Your task to perform on an android device: Play the last video I watched on Youtube Image 0: 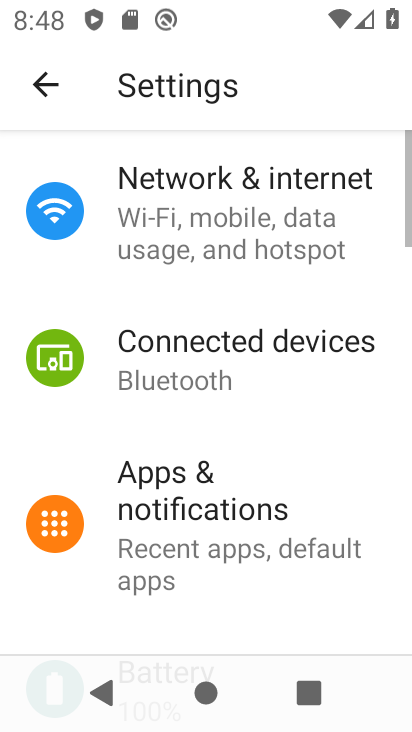
Step 0: press home button
Your task to perform on an android device: Play the last video I watched on Youtube Image 1: 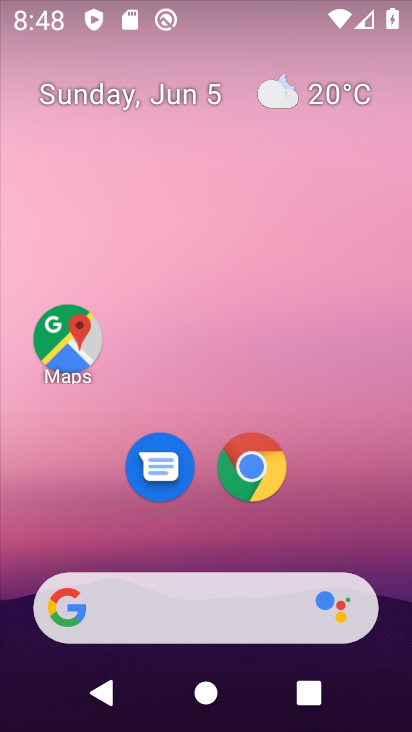
Step 1: drag from (312, 537) to (324, 10)
Your task to perform on an android device: Play the last video I watched on Youtube Image 2: 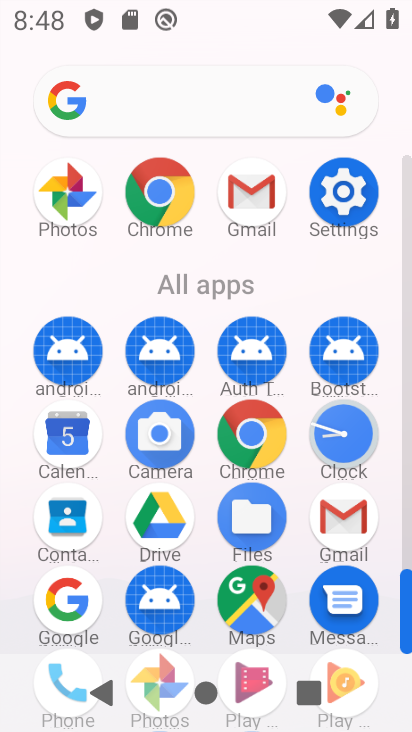
Step 2: drag from (206, 619) to (210, 216)
Your task to perform on an android device: Play the last video I watched on Youtube Image 3: 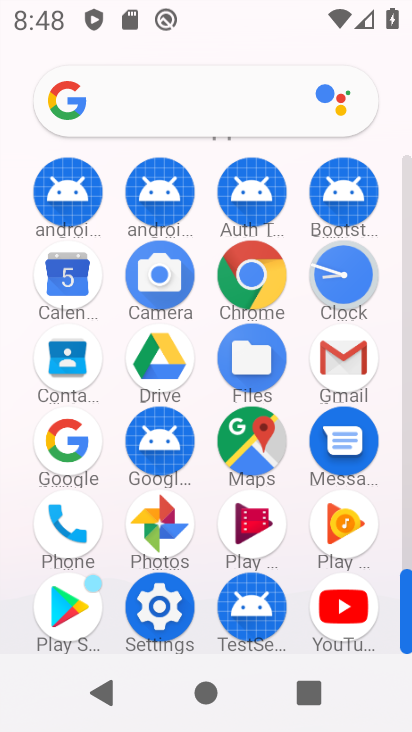
Step 3: click (344, 614)
Your task to perform on an android device: Play the last video I watched on Youtube Image 4: 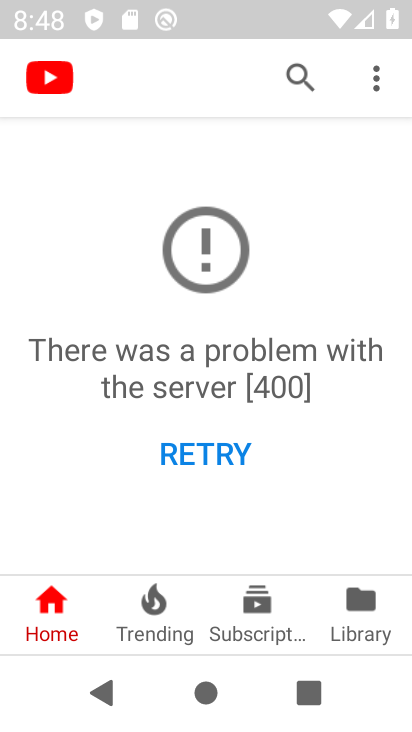
Step 4: click (370, 600)
Your task to perform on an android device: Play the last video I watched on Youtube Image 5: 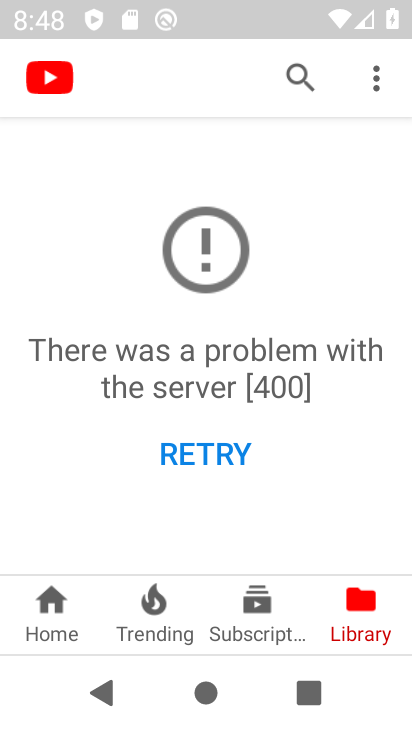
Step 5: click (218, 460)
Your task to perform on an android device: Play the last video I watched on Youtube Image 6: 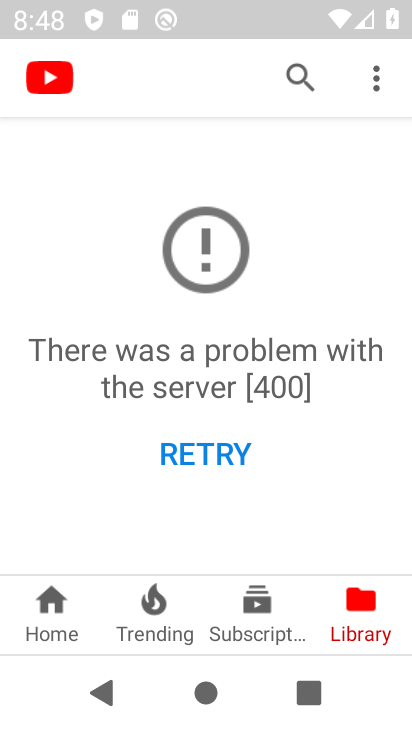
Step 6: click (184, 469)
Your task to perform on an android device: Play the last video I watched on Youtube Image 7: 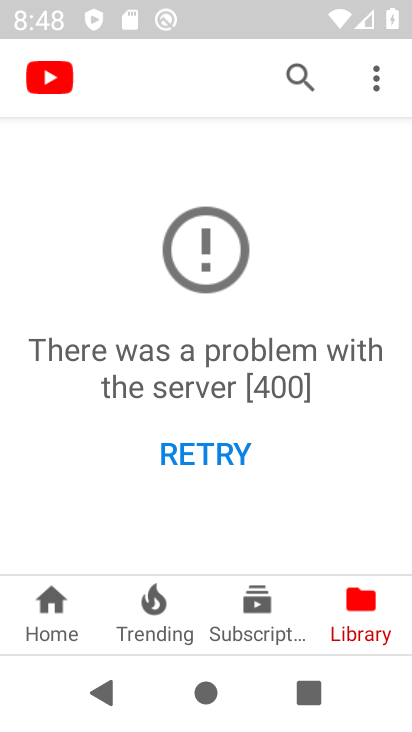
Step 7: task complete